Your task to perform on an android device: Find coffee shops on Maps Image 0: 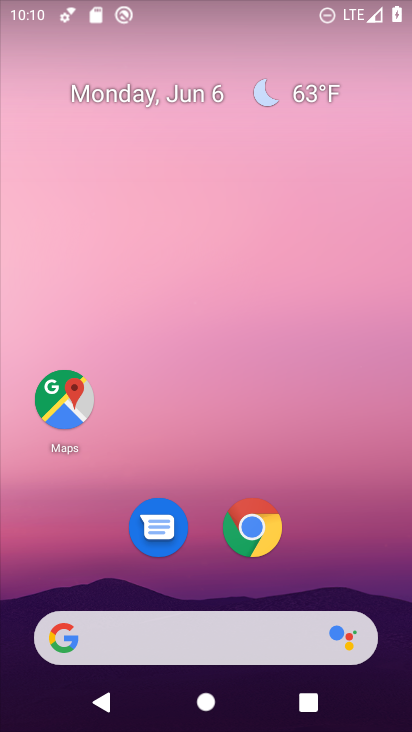
Step 0: drag from (341, 567) to (374, 138)
Your task to perform on an android device: Find coffee shops on Maps Image 1: 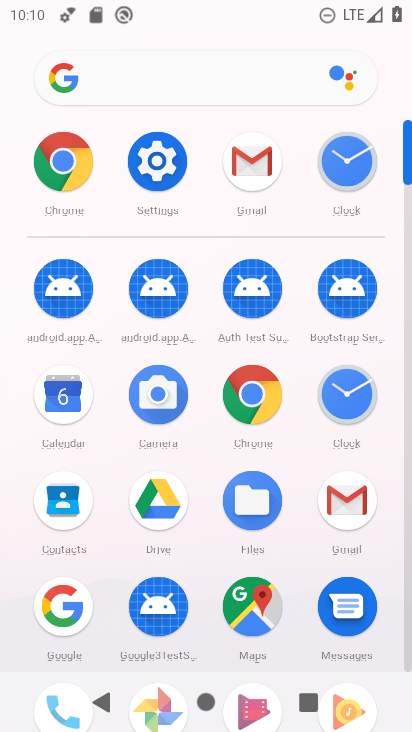
Step 1: click (268, 82)
Your task to perform on an android device: Find coffee shops on Maps Image 2: 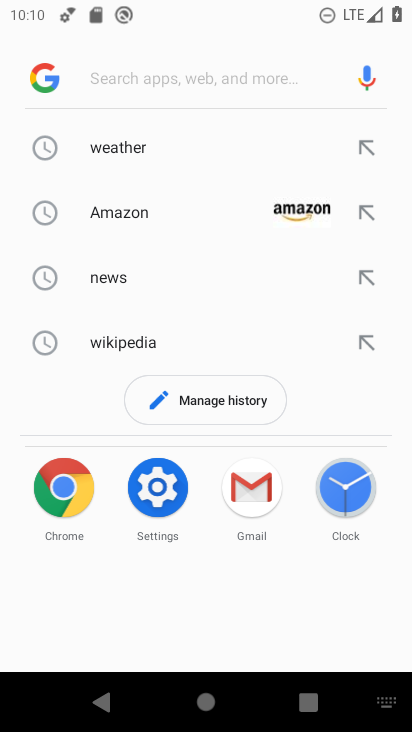
Step 2: type "coffee"
Your task to perform on an android device: Find coffee shops on Maps Image 3: 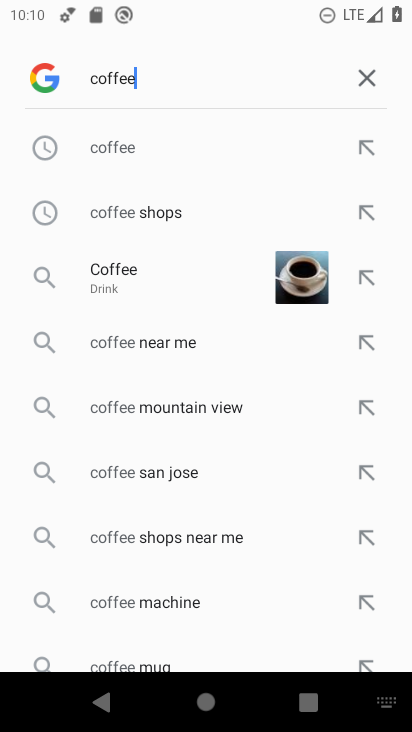
Step 3: click (121, 148)
Your task to perform on an android device: Find coffee shops on Maps Image 4: 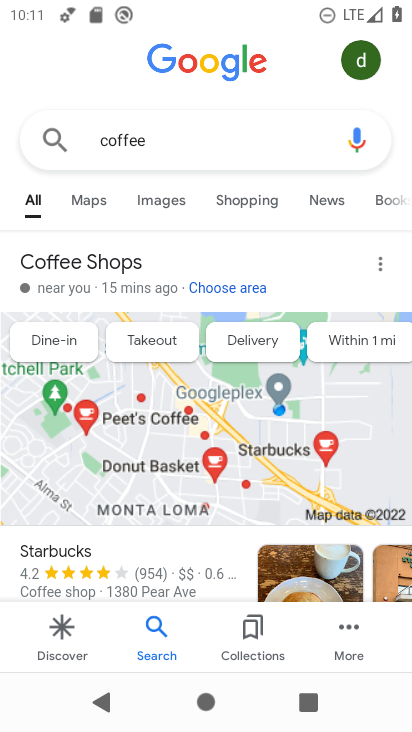
Step 4: task complete